Your task to perform on an android device: star an email in the gmail app Image 0: 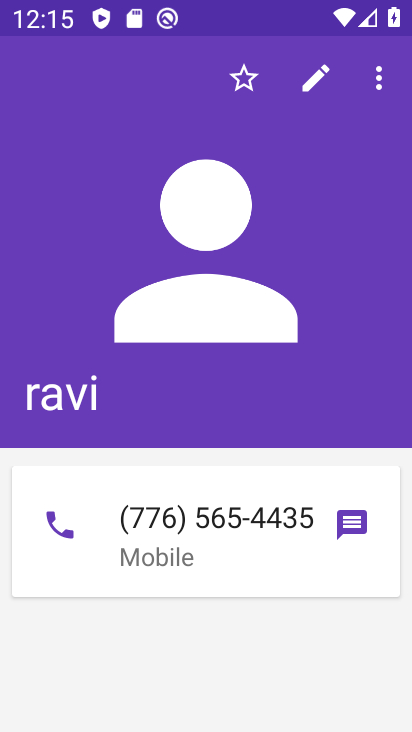
Step 0: press home button
Your task to perform on an android device: star an email in the gmail app Image 1: 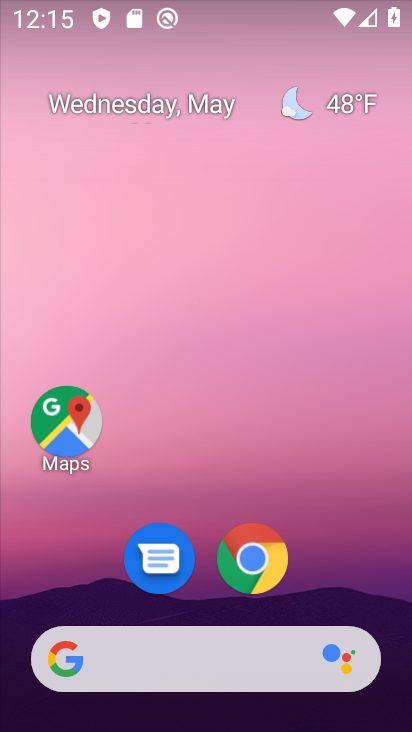
Step 1: drag from (390, 545) to (373, 133)
Your task to perform on an android device: star an email in the gmail app Image 2: 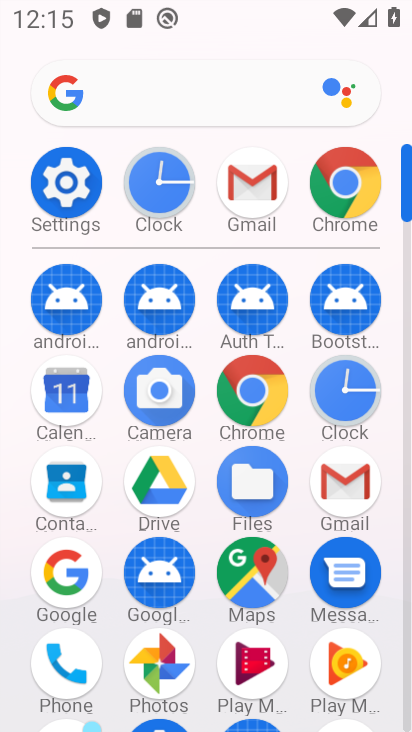
Step 2: click (336, 497)
Your task to perform on an android device: star an email in the gmail app Image 3: 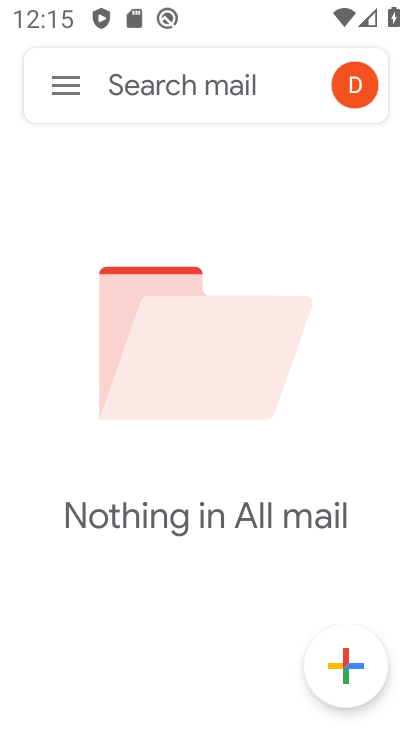
Step 3: click (53, 77)
Your task to perform on an android device: star an email in the gmail app Image 4: 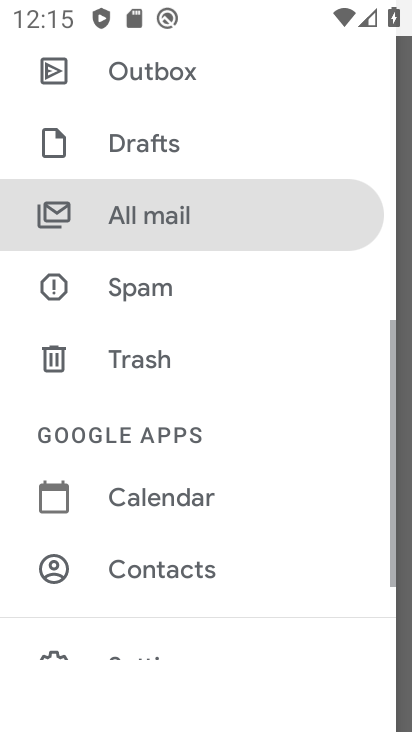
Step 4: drag from (303, 183) to (254, 585)
Your task to perform on an android device: star an email in the gmail app Image 5: 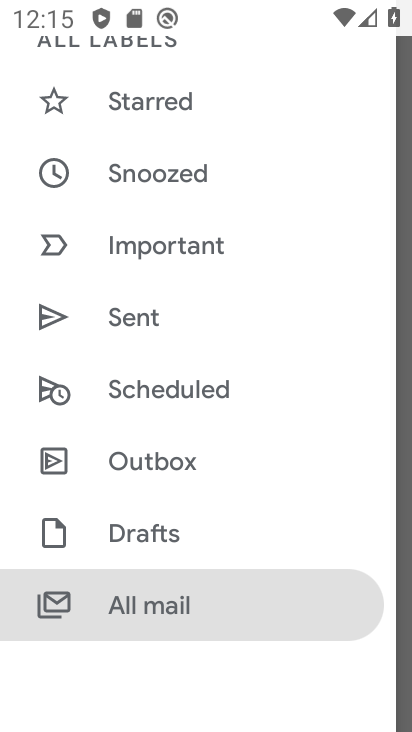
Step 5: drag from (260, 232) to (244, 479)
Your task to perform on an android device: star an email in the gmail app Image 6: 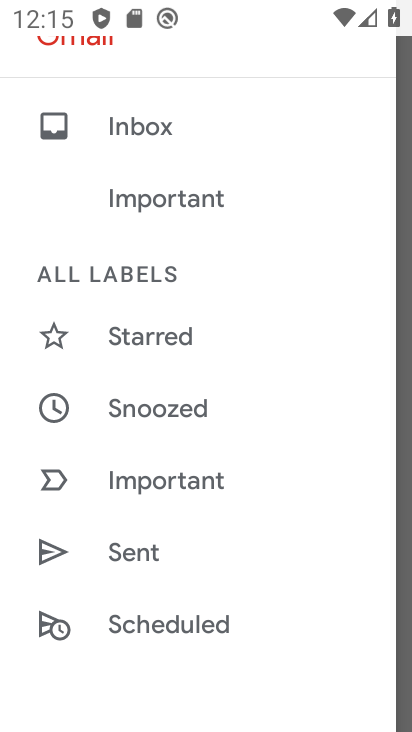
Step 6: click (179, 343)
Your task to perform on an android device: star an email in the gmail app Image 7: 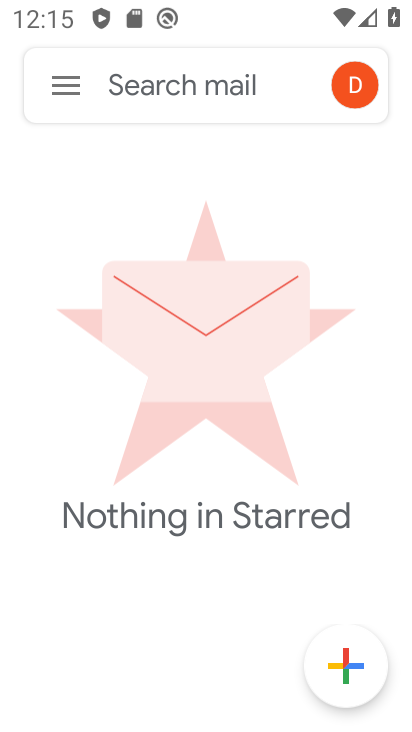
Step 7: task complete